Your task to perform on an android device: change notification settings in the gmail app Image 0: 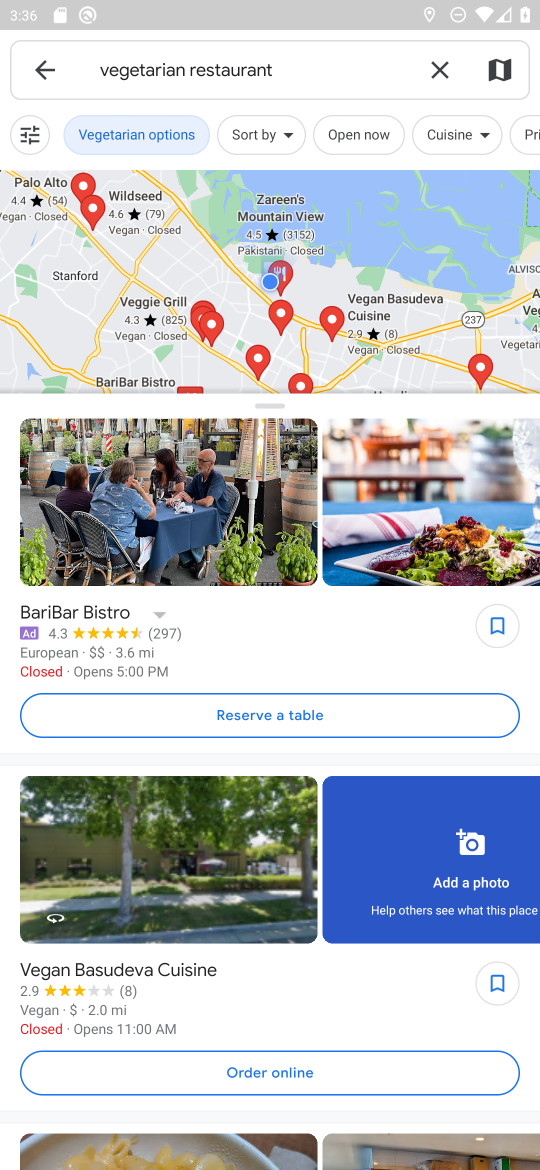
Step 0: press home button
Your task to perform on an android device: change notification settings in the gmail app Image 1: 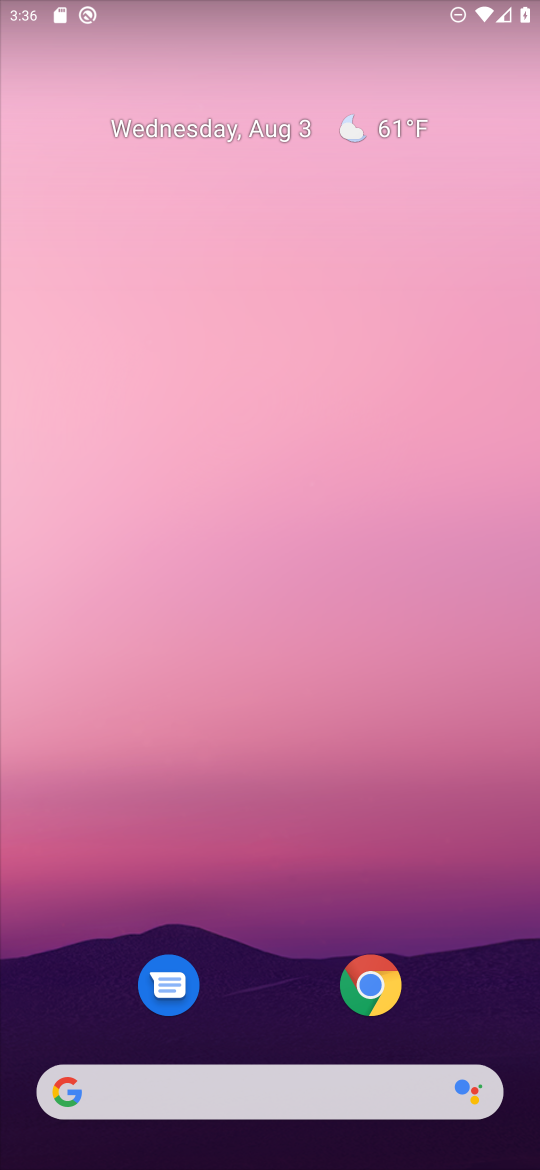
Step 1: drag from (266, 994) to (280, 118)
Your task to perform on an android device: change notification settings in the gmail app Image 2: 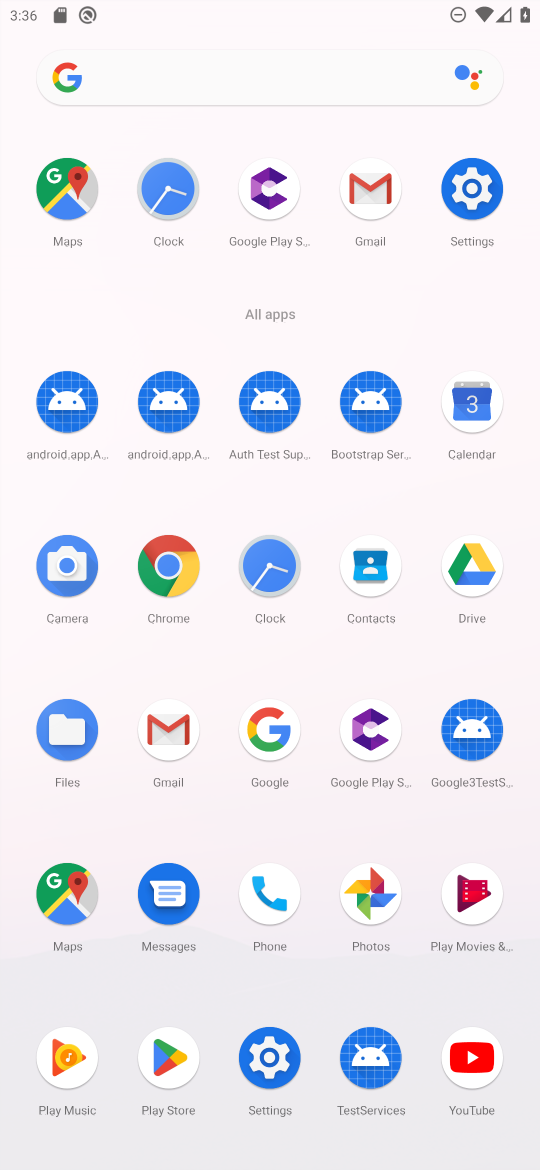
Step 2: click (365, 193)
Your task to perform on an android device: change notification settings in the gmail app Image 3: 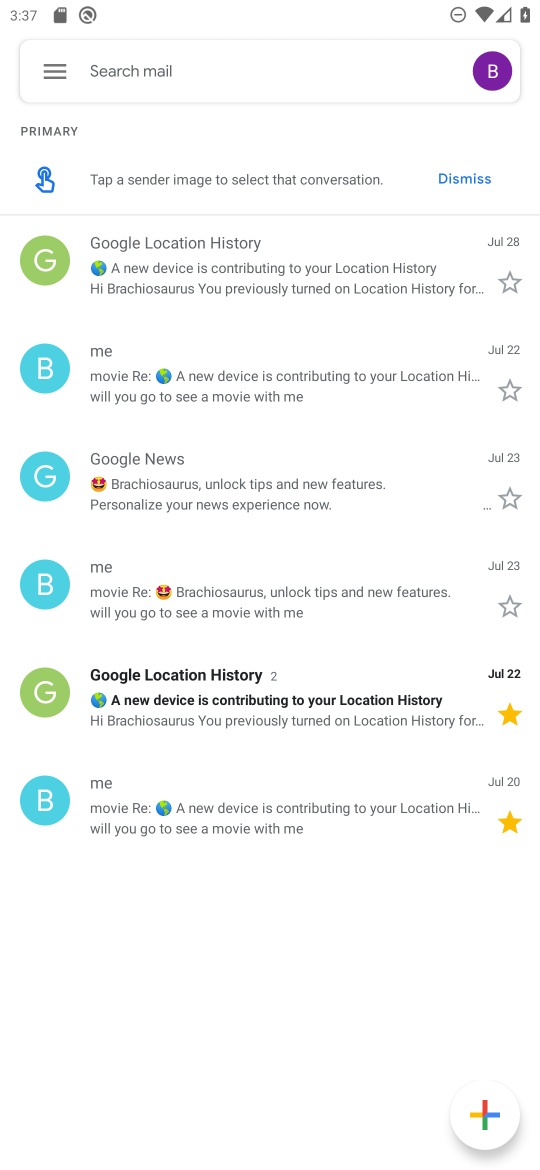
Step 3: click (49, 56)
Your task to perform on an android device: change notification settings in the gmail app Image 4: 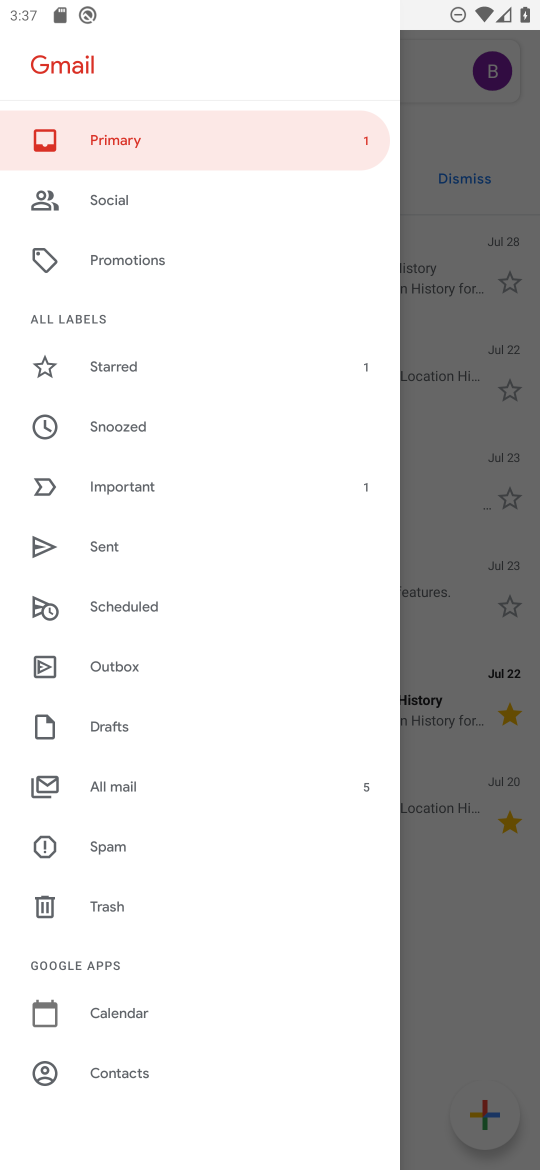
Step 4: drag from (75, 781) to (75, 279)
Your task to perform on an android device: change notification settings in the gmail app Image 5: 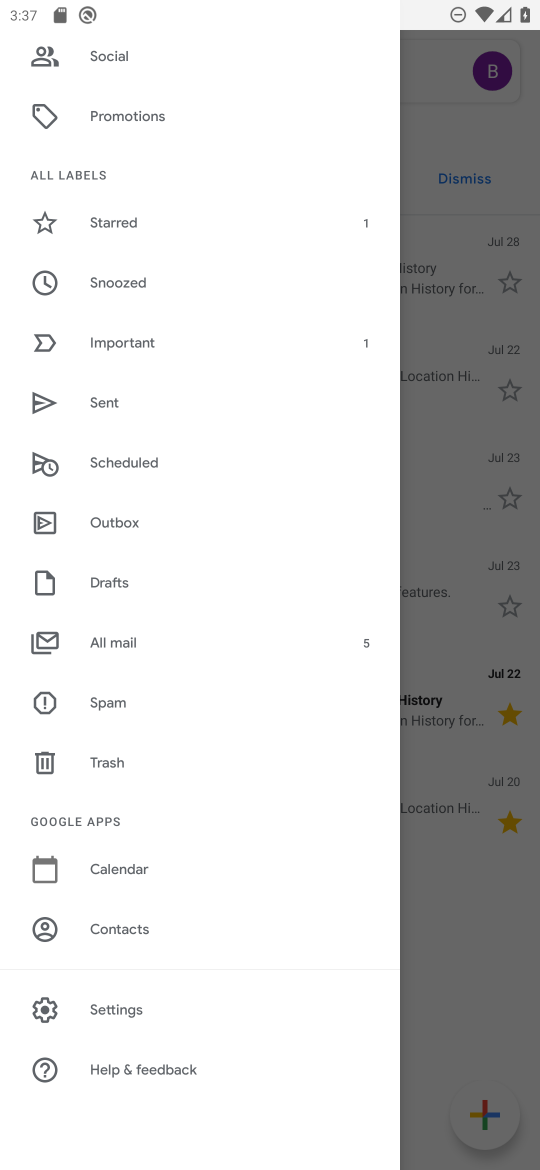
Step 5: click (109, 996)
Your task to perform on an android device: change notification settings in the gmail app Image 6: 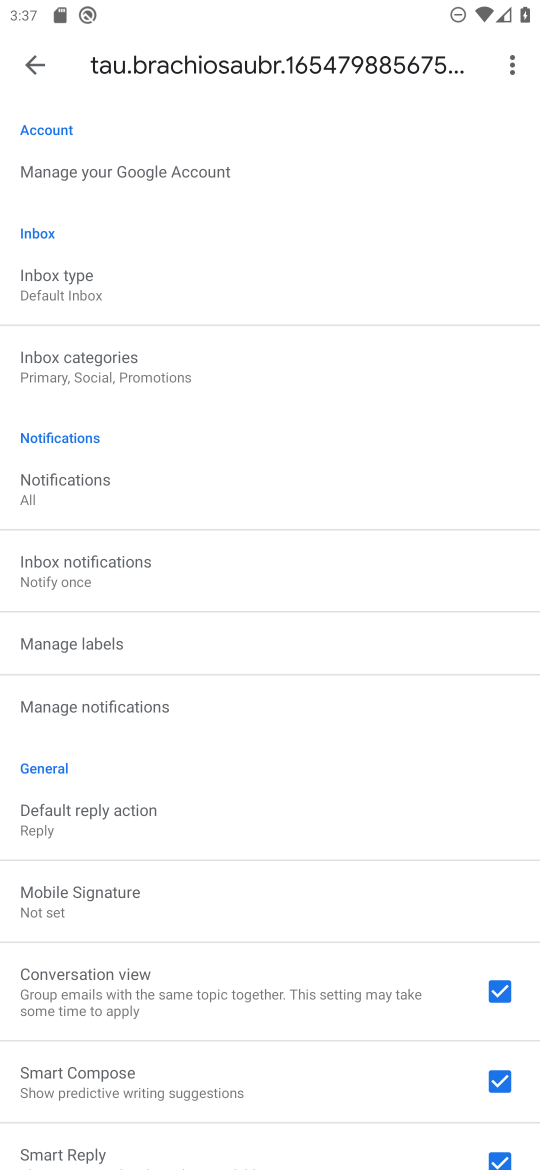
Step 6: click (86, 709)
Your task to perform on an android device: change notification settings in the gmail app Image 7: 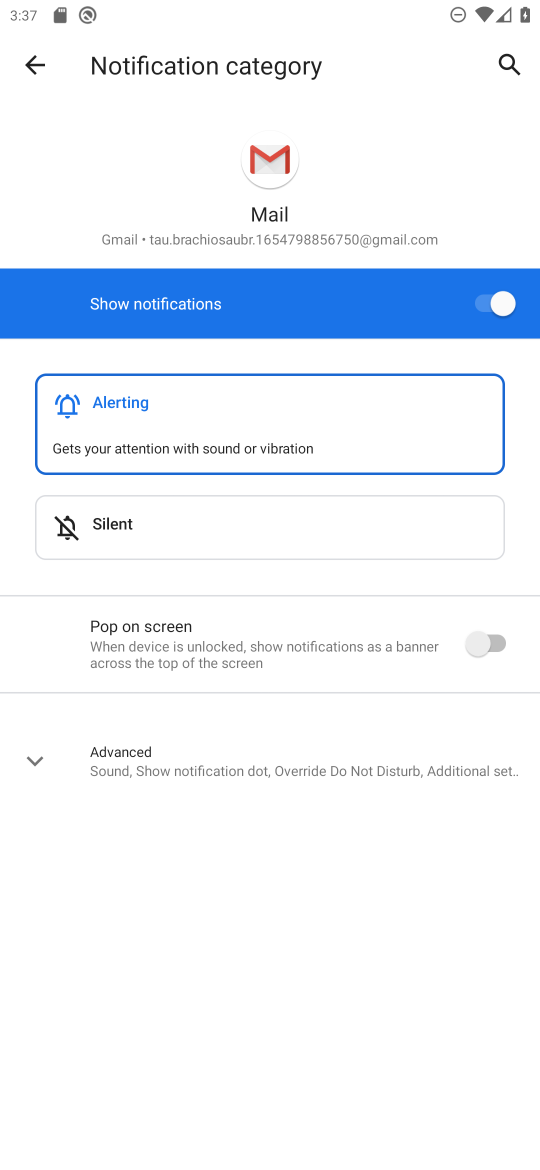
Step 7: click (465, 318)
Your task to perform on an android device: change notification settings in the gmail app Image 8: 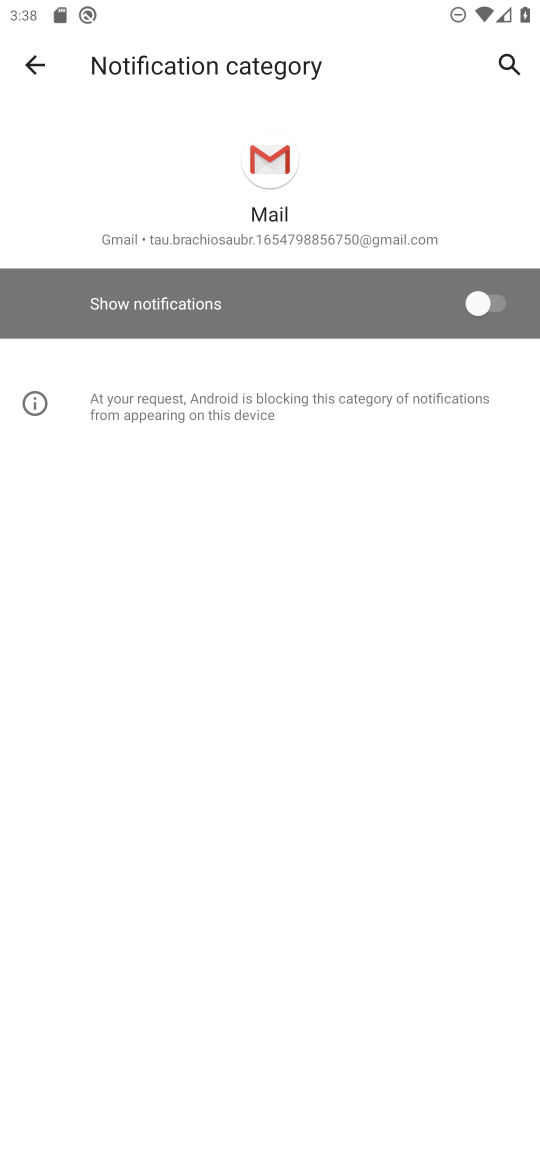
Step 8: task complete